Your task to perform on an android device: Open the calendar app, open the side menu, and click the "Day" option Image 0: 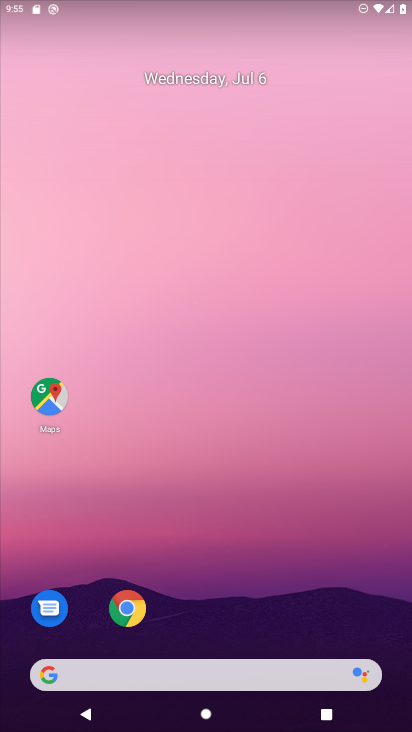
Step 0: drag from (202, 590) to (285, 233)
Your task to perform on an android device: Open the calendar app, open the side menu, and click the "Day" option Image 1: 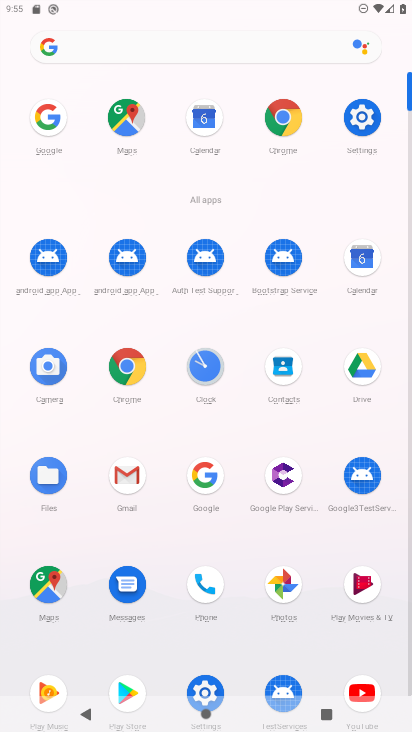
Step 1: click (368, 260)
Your task to perform on an android device: Open the calendar app, open the side menu, and click the "Day" option Image 2: 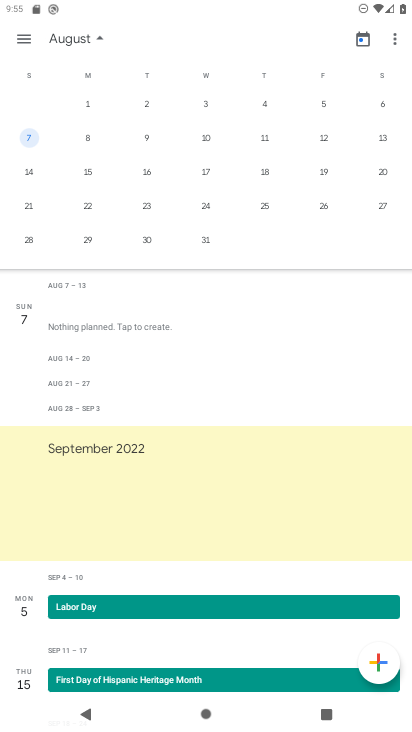
Step 2: drag from (32, 156) to (408, 136)
Your task to perform on an android device: Open the calendar app, open the side menu, and click the "Day" option Image 3: 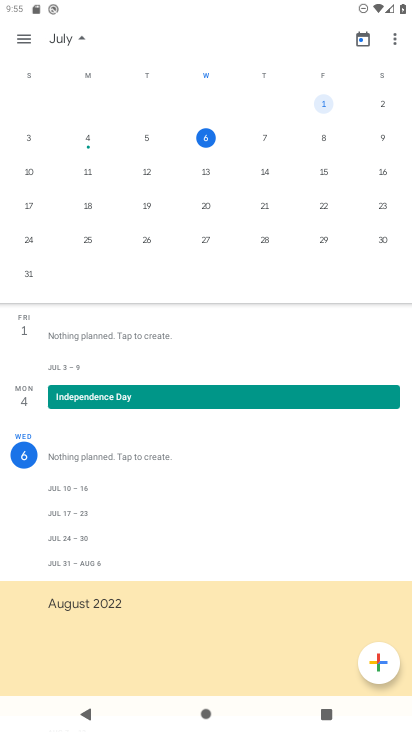
Step 3: click (25, 38)
Your task to perform on an android device: Open the calendar app, open the side menu, and click the "Day" option Image 4: 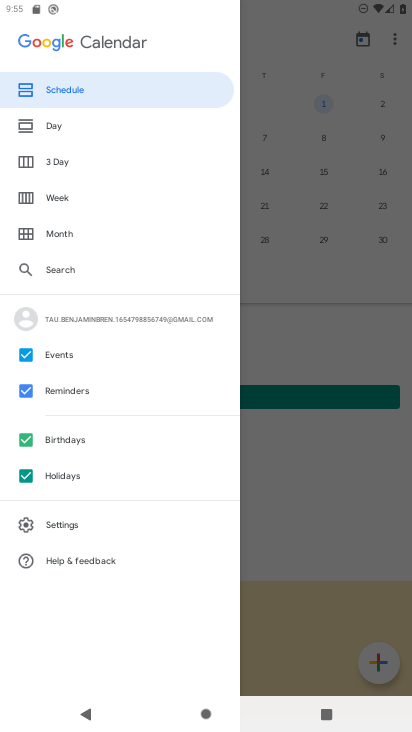
Step 4: click (55, 124)
Your task to perform on an android device: Open the calendar app, open the side menu, and click the "Day" option Image 5: 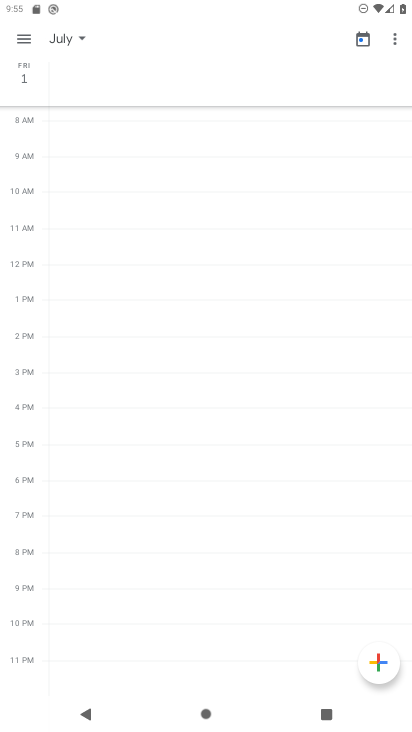
Step 5: task complete